Your task to perform on an android device: turn on the 24-hour format for clock Image 0: 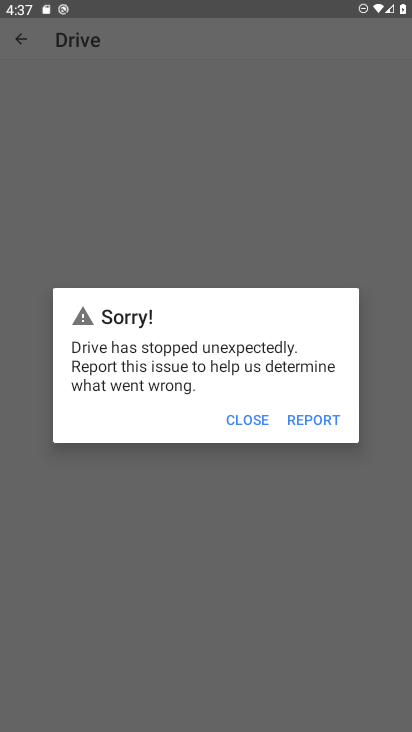
Step 0: press home button
Your task to perform on an android device: turn on the 24-hour format for clock Image 1: 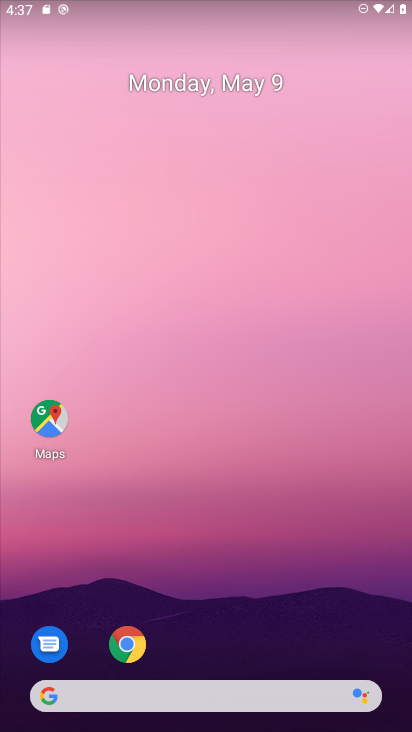
Step 1: drag from (267, 587) to (213, 206)
Your task to perform on an android device: turn on the 24-hour format for clock Image 2: 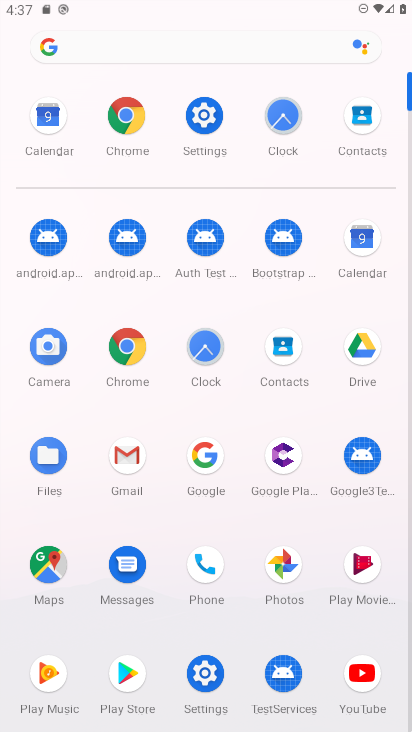
Step 2: click (197, 352)
Your task to perform on an android device: turn on the 24-hour format for clock Image 3: 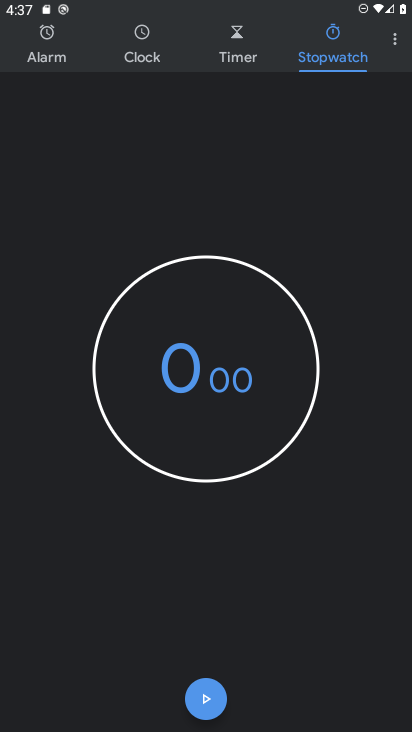
Step 3: click (392, 37)
Your task to perform on an android device: turn on the 24-hour format for clock Image 4: 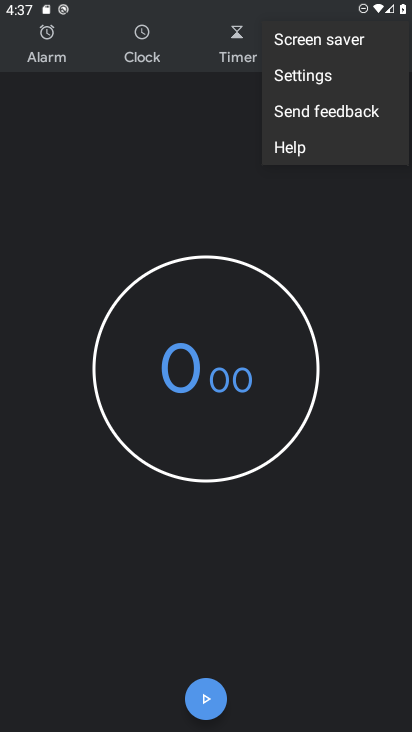
Step 4: click (331, 82)
Your task to perform on an android device: turn on the 24-hour format for clock Image 5: 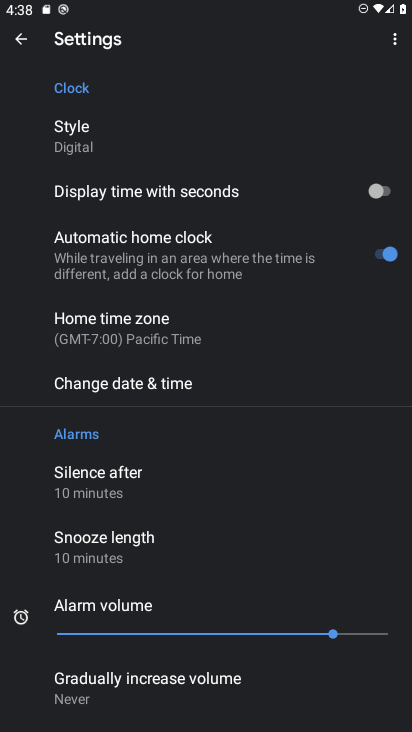
Step 5: click (215, 380)
Your task to perform on an android device: turn on the 24-hour format for clock Image 6: 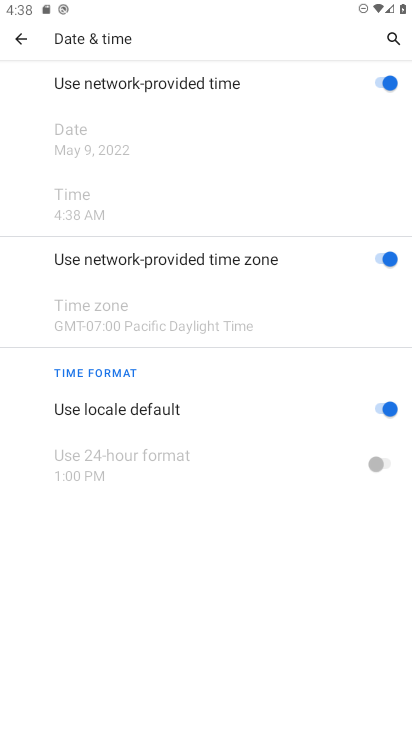
Step 6: click (377, 406)
Your task to perform on an android device: turn on the 24-hour format for clock Image 7: 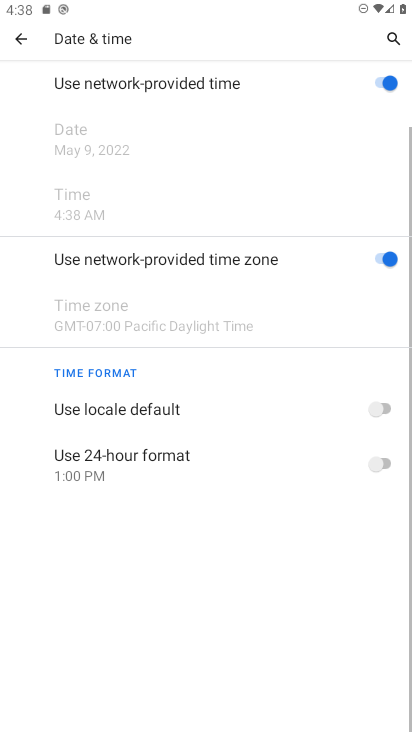
Step 7: click (392, 465)
Your task to perform on an android device: turn on the 24-hour format for clock Image 8: 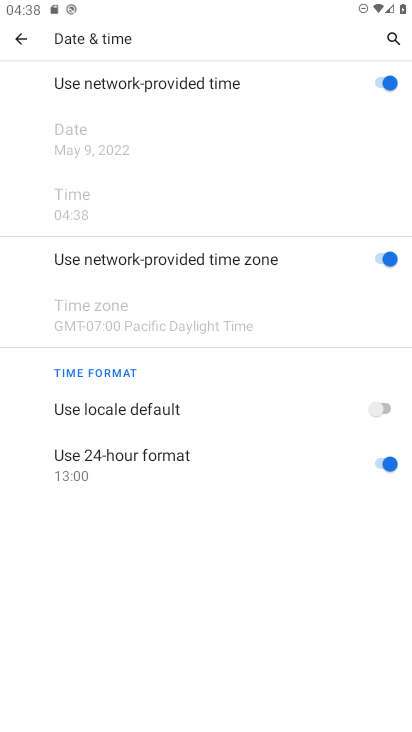
Step 8: task complete